Your task to perform on an android device: add a contact Image 0: 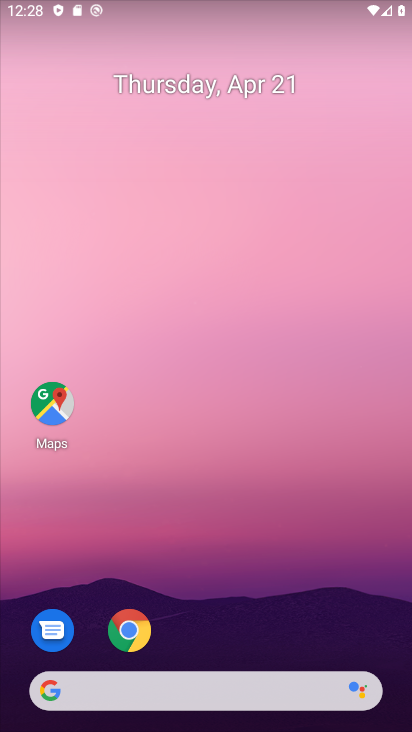
Step 0: drag from (250, 551) to (222, 132)
Your task to perform on an android device: add a contact Image 1: 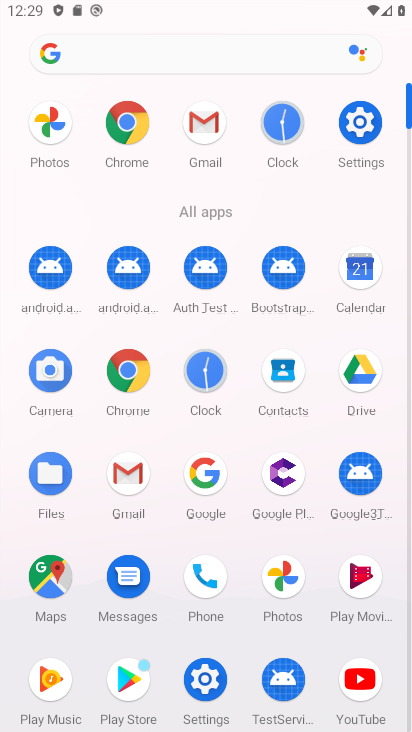
Step 1: click (296, 405)
Your task to perform on an android device: add a contact Image 2: 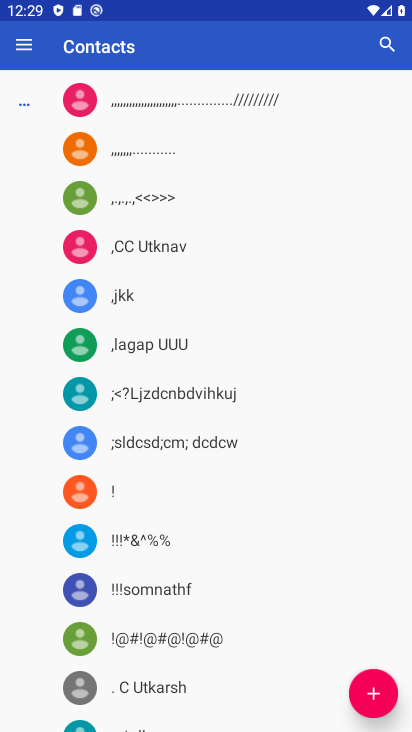
Step 2: click (375, 693)
Your task to perform on an android device: add a contact Image 3: 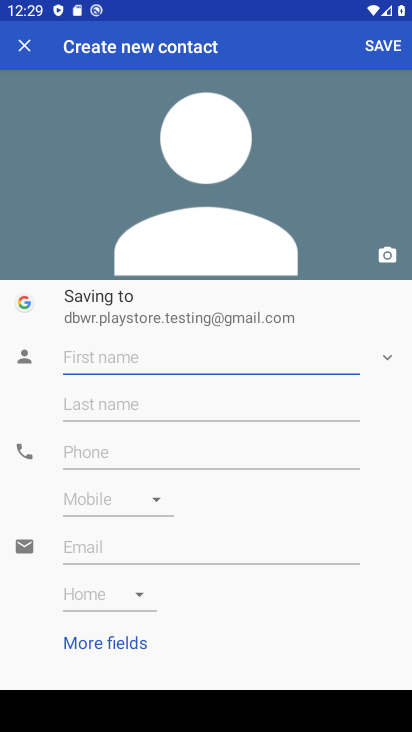
Step 3: type "joe"
Your task to perform on an android device: add a contact Image 4: 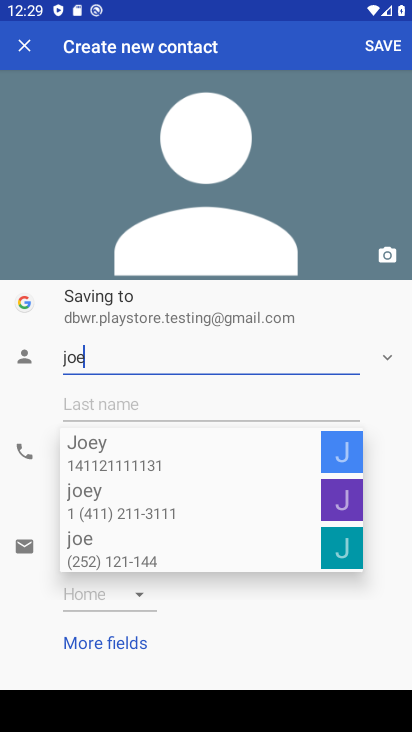
Step 4: click (230, 404)
Your task to perform on an android device: add a contact Image 5: 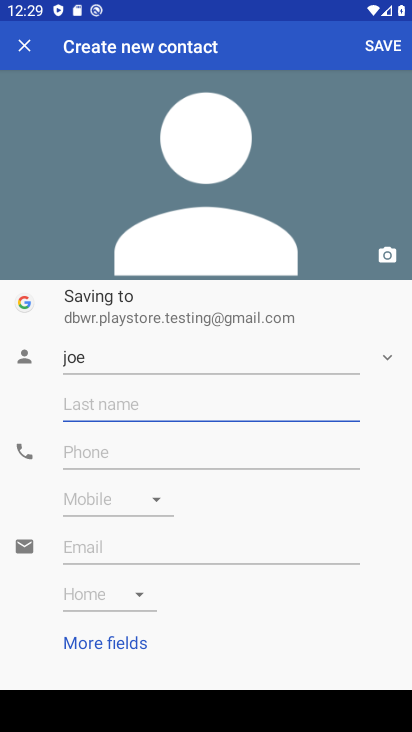
Step 5: type "biden"
Your task to perform on an android device: add a contact Image 6: 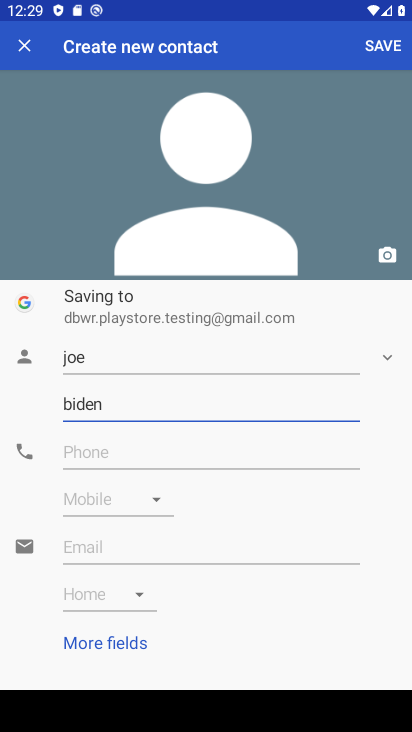
Step 6: click (258, 440)
Your task to perform on an android device: add a contact Image 7: 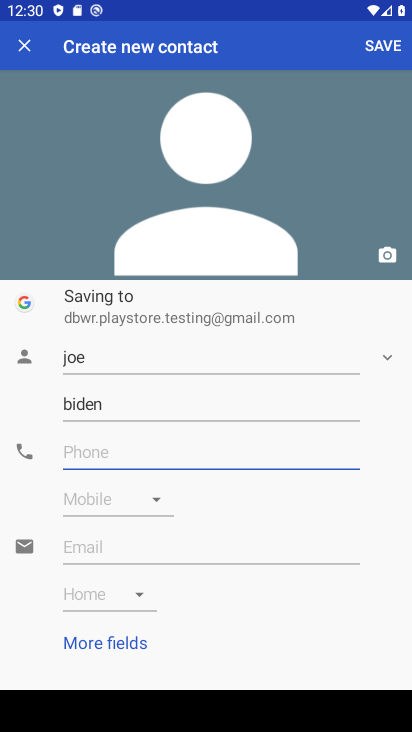
Step 7: type "00198438748"
Your task to perform on an android device: add a contact Image 8: 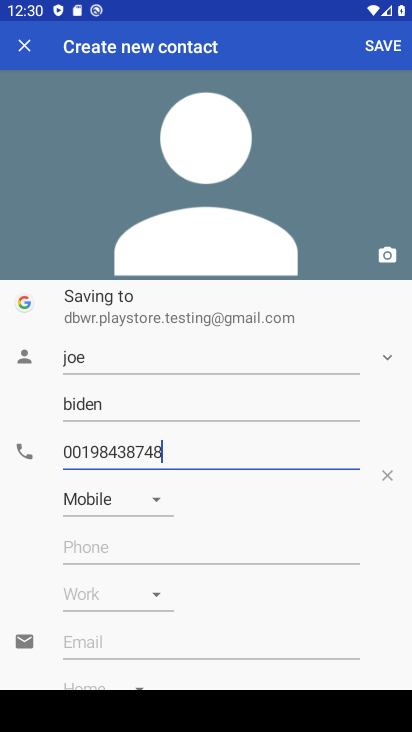
Step 8: task complete